Your task to perform on an android device: star an email in the gmail app Image 0: 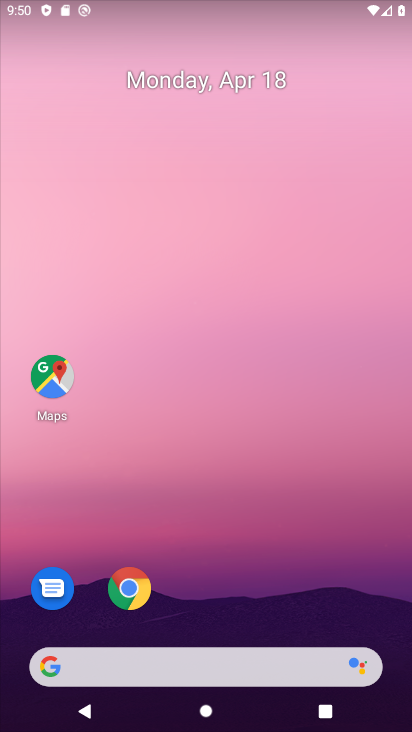
Step 0: drag from (377, 601) to (325, 139)
Your task to perform on an android device: star an email in the gmail app Image 1: 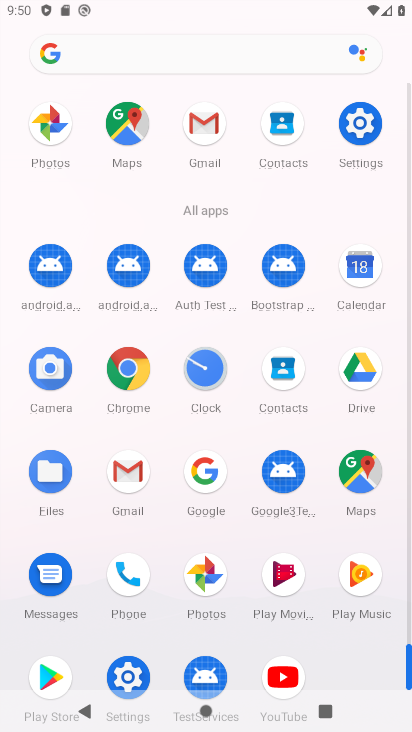
Step 1: click (127, 476)
Your task to perform on an android device: star an email in the gmail app Image 2: 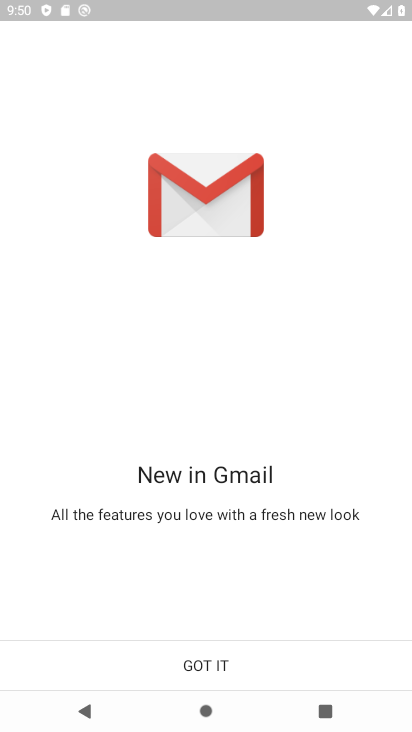
Step 2: click (216, 677)
Your task to perform on an android device: star an email in the gmail app Image 3: 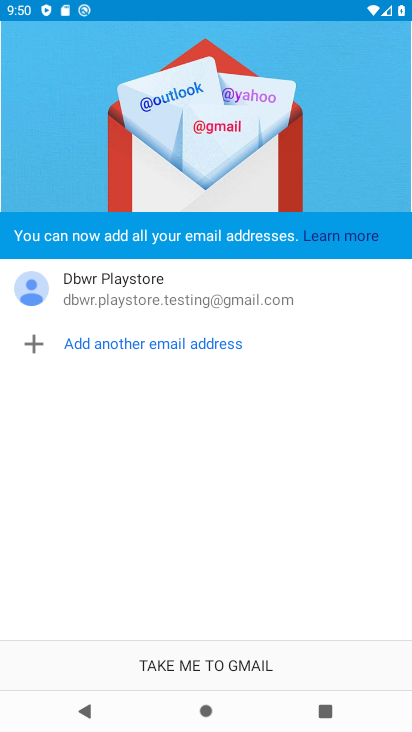
Step 3: click (181, 644)
Your task to perform on an android device: star an email in the gmail app Image 4: 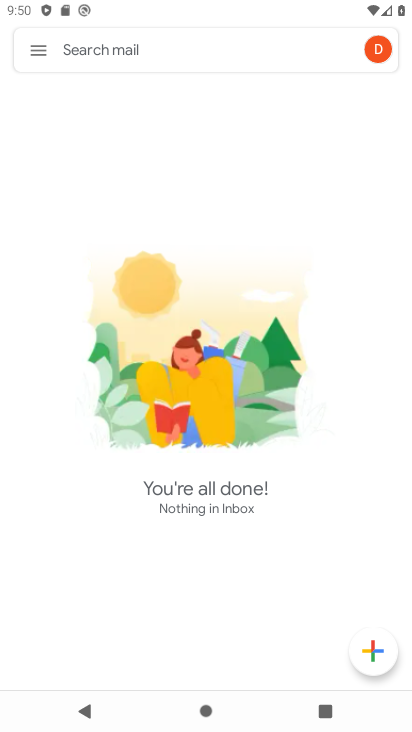
Step 4: click (40, 50)
Your task to perform on an android device: star an email in the gmail app Image 5: 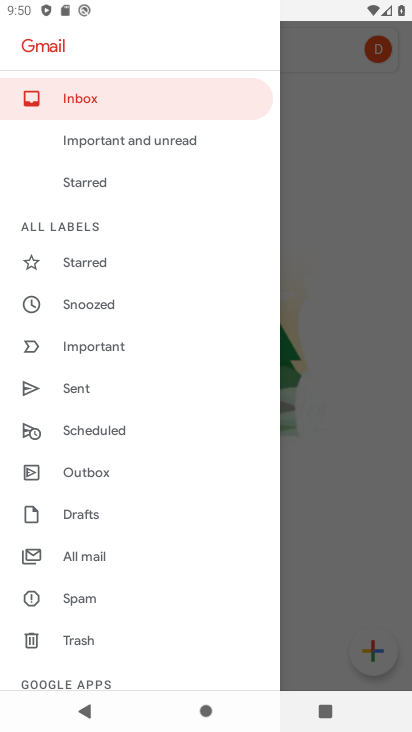
Step 5: click (94, 558)
Your task to perform on an android device: star an email in the gmail app Image 6: 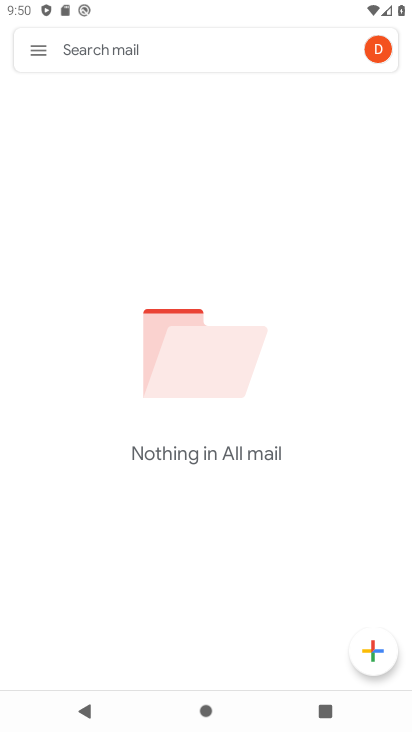
Step 6: task complete